Your task to perform on an android device: visit the assistant section in the google photos Image 0: 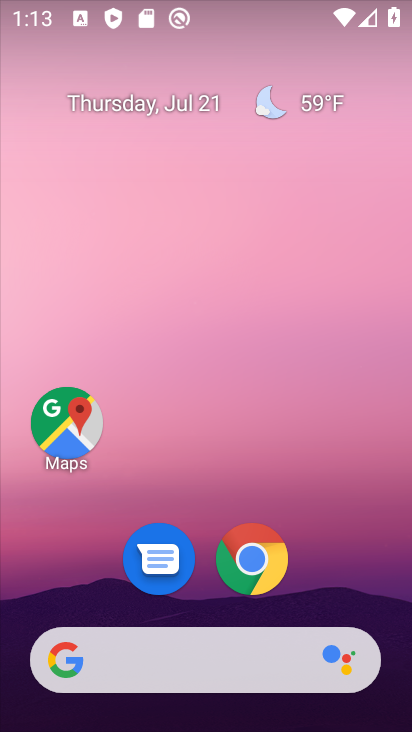
Step 0: click (98, 552)
Your task to perform on an android device: visit the assistant section in the google photos Image 1: 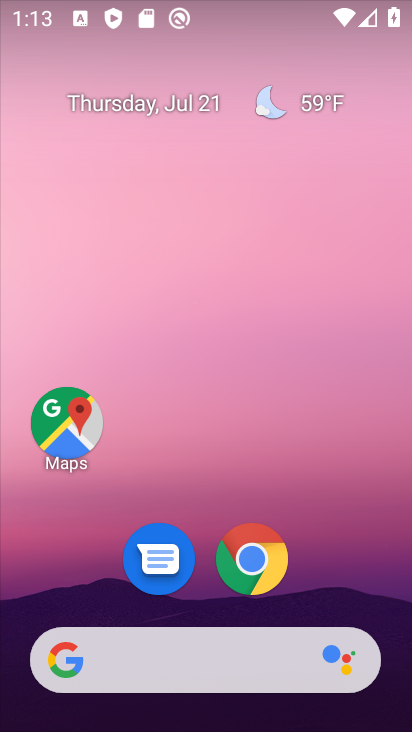
Step 1: drag from (232, 660) to (259, 105)
Your task to perform on an android device: visit the assistant section in the google photos Image 2: 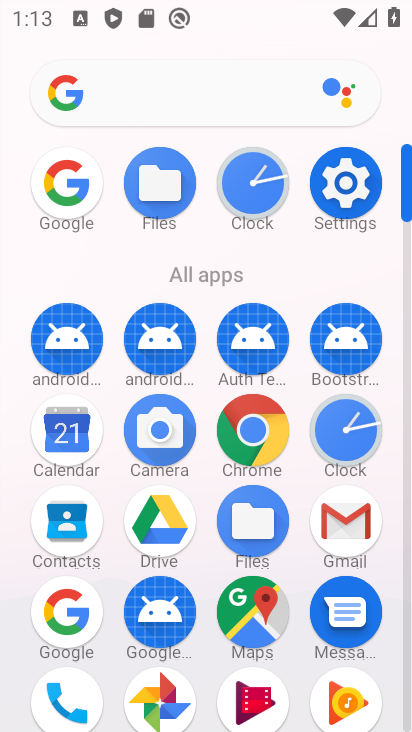
Step 2: drag from (209, 483) to (156, 71)
Your task to perform on an android device: visit the assistant section in the google photos Image 3: 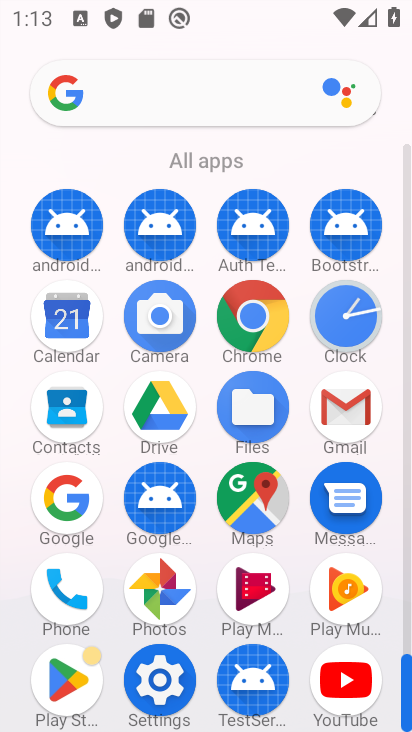
Step 3: click (163, 599)
Your task to perform on an android device: visit the assistant section in the google photos Image 4: 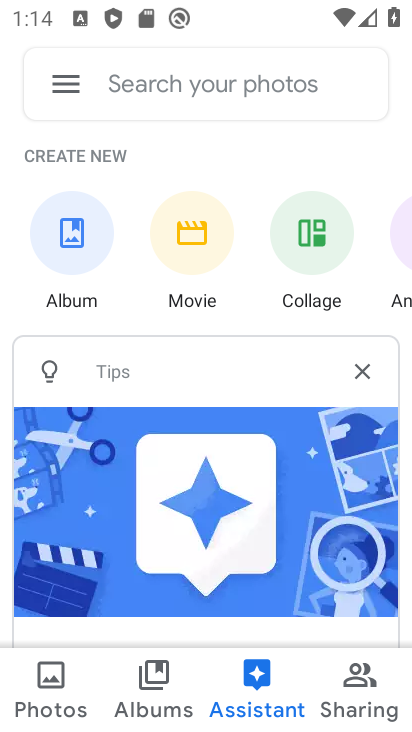
Step 4: task complete